Your task to perform on an android device: Turn on the flashlight Image 0: 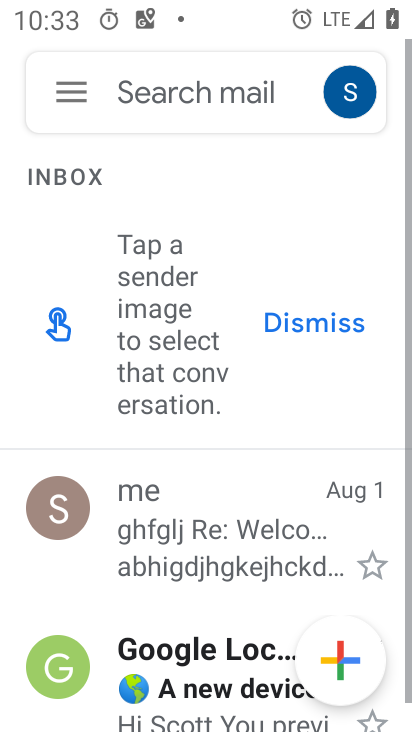
Step 0: press home button
Your task to perform on an android device: Turn on the flashlight Image 1: 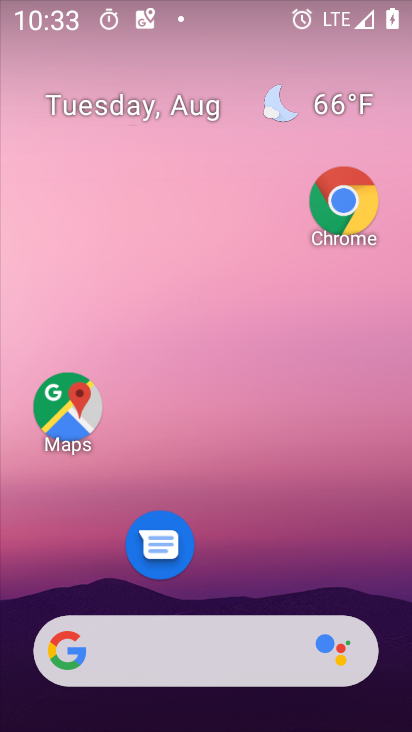
Step 1: task complete